Your task to perform on an android device: turn notification dots on Image 0: 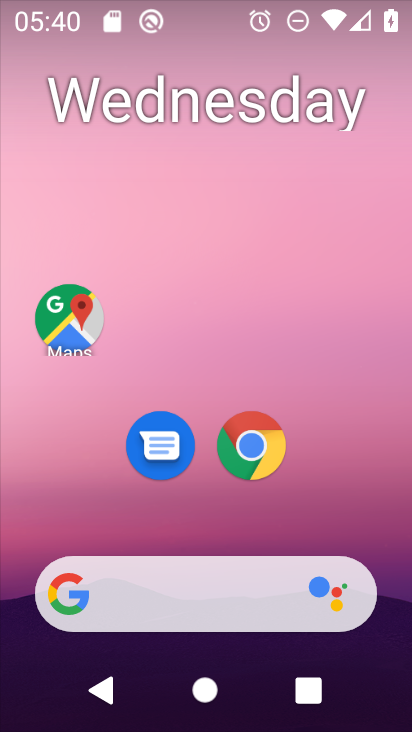
Step 0: drag from (190, 533) to (198, 48)
Your task to perform on an android device: turn notification dots on Image 1: 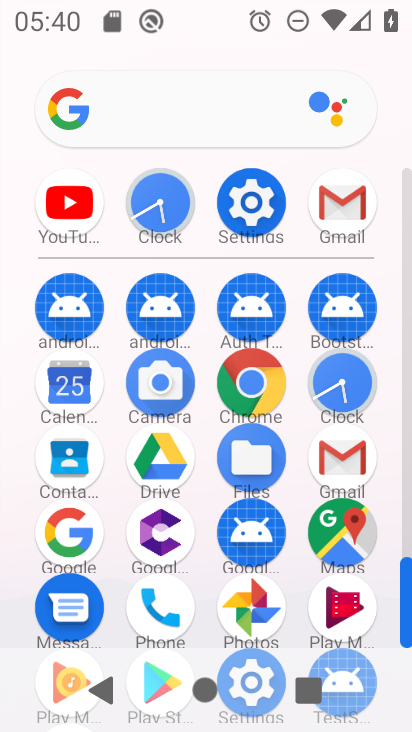
Step 1: click (232, 201)
Your task to perform on an android device: turn notification dots on Image 2: 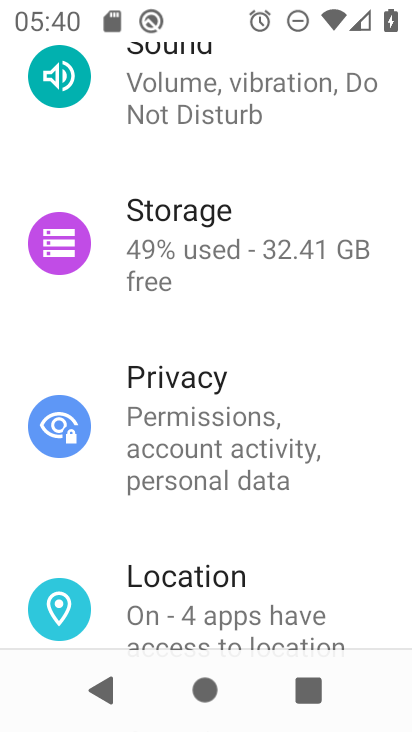
Step 2: drag from (64, 589) to (93, 355)
Your task to perform on an android device: turn notification dots on Image 3: 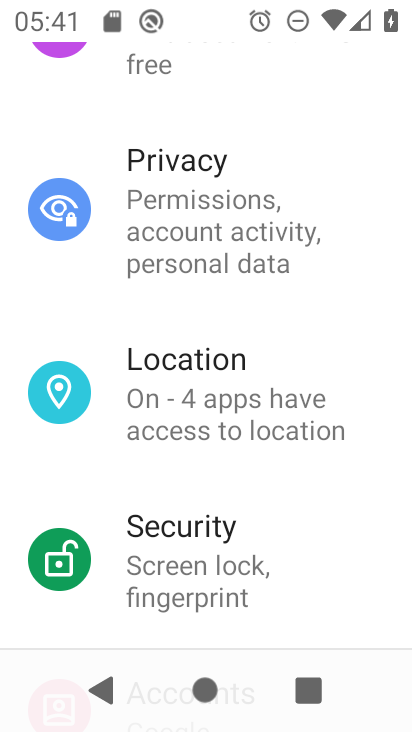
Step 3: drag from (189, 250) to (224, 697)
Your task to perform on an android device: turn notification dots on Image 4: 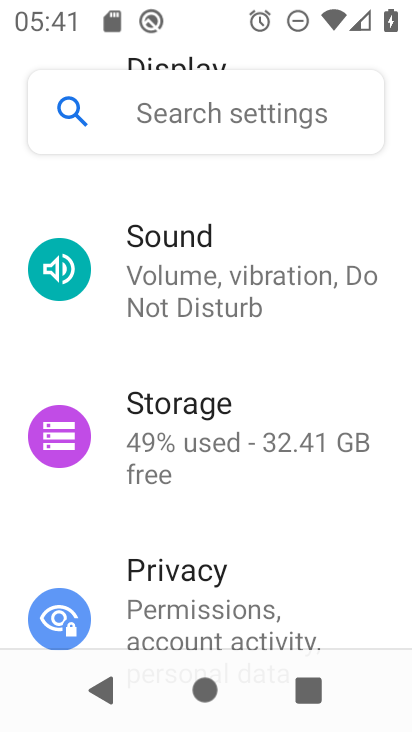
Step 4: drag from (266, 231) to (298, 642)
Your task to perform on an android device: turn notification dots on Image 5: 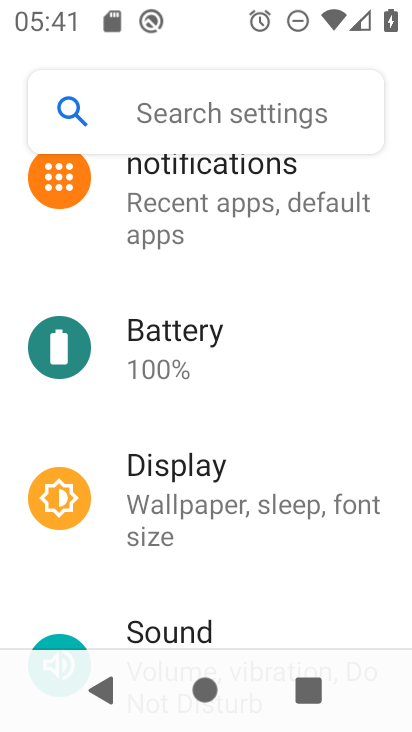
Step 5: click (246, 220)
Your task to perform on an android device: turn notification dots on Image 6: 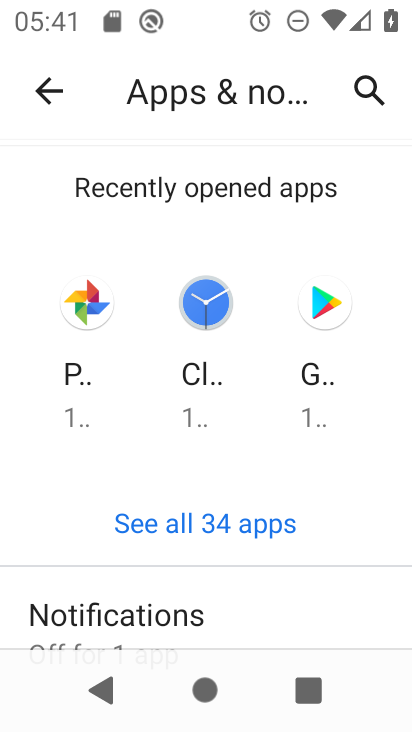
Step 6: drag from (136, 605) to (215, 101)
Your task to perform on an android device: turn notification dots on Image 7: 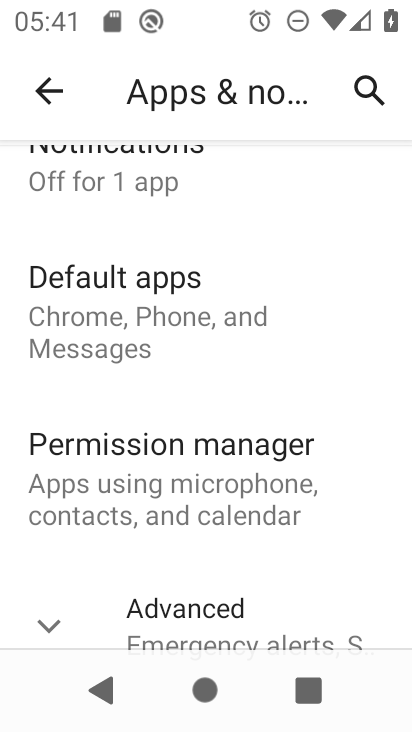
Step 7: click (185, 197)
Your task to perform on an android device: turn notification dots on Image 8: 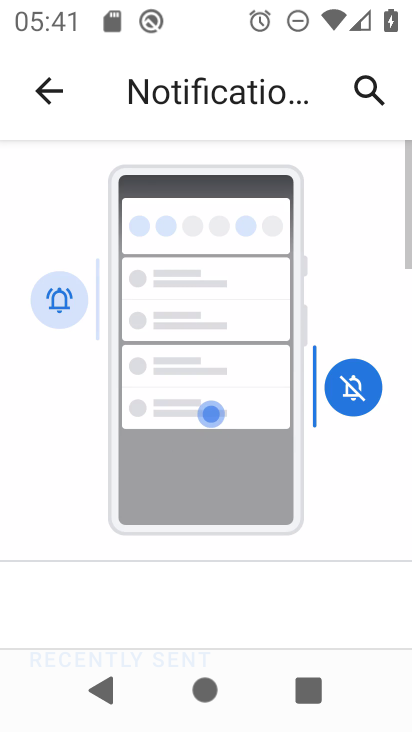
Step 8: drag from (86, 607) to (136, 258)
Your task to perform on an android device: turn notification dots on Image 9: 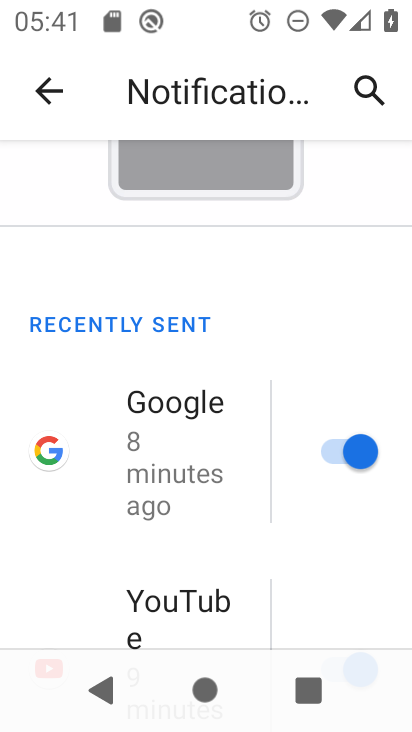
Step 9: drag from (118, 598) to (145, 234)
Your task to perform on an android device: turn notification dots on Image 10: 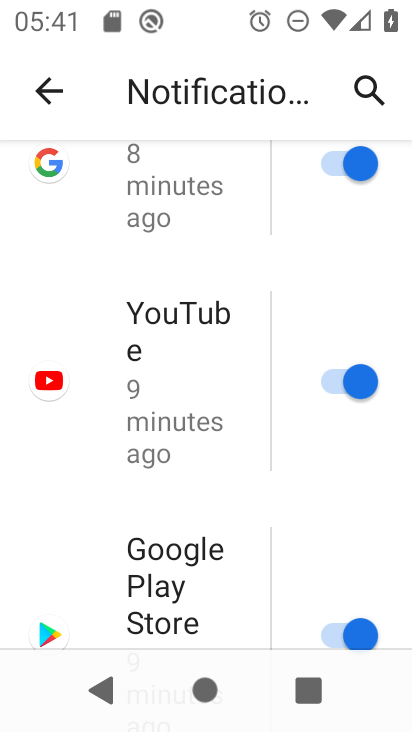
Step 10: drag from (140, 473) to (189, 187)
Your task to perform on an android device: turn notification dots on Image 11: 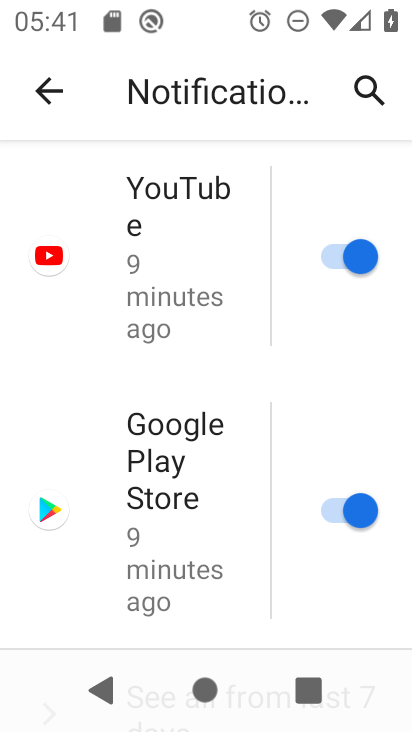
Step 11: drag from (114, 594) to (157, 130)
Your task to perform on an android device: turn notification dots on Image 12: 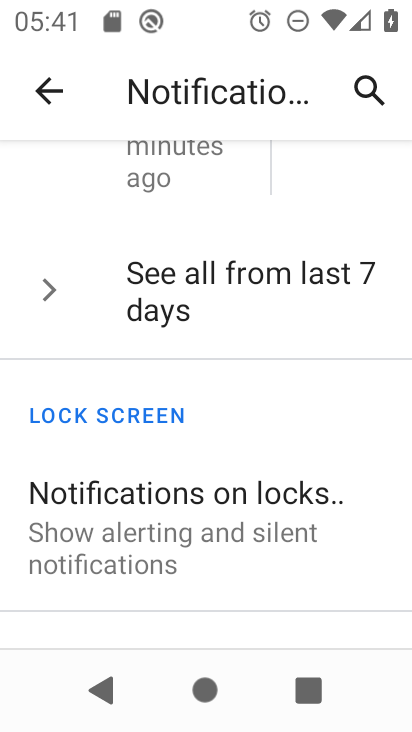
Step 12: drag from (250, 546) to (256, 132)
Your task to perform on an android device: turn notification dots on Image 13: 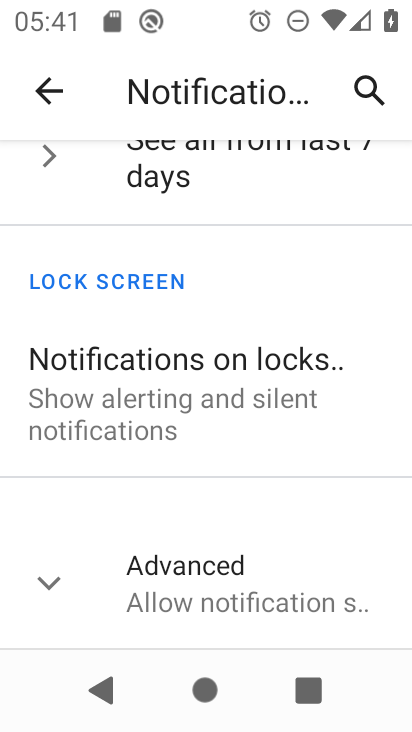
Step 13: click (146, 608)
Your task to perform on an android device: turn notification dots on Image 14: 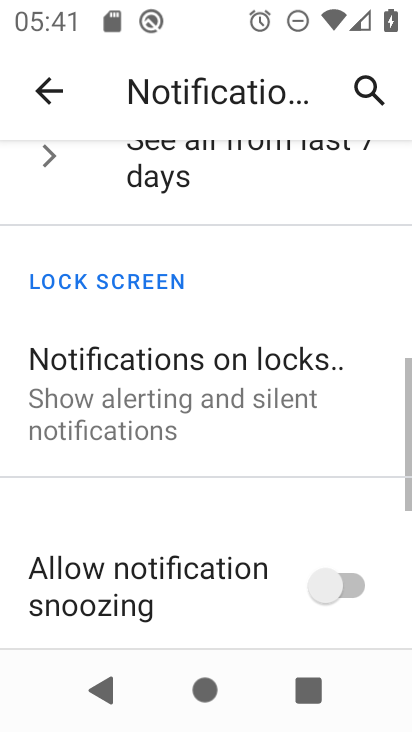
Step 14: drag from (146, 608) to (211, 220)
Your task to perform on an android device: turn notification dots on Image 15: 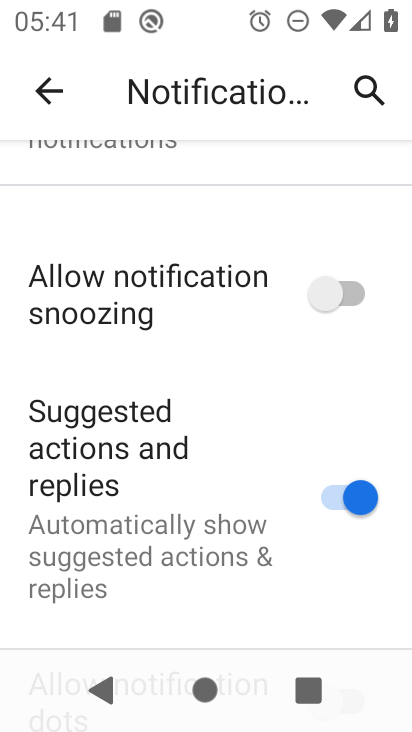
Step 15: drag from (331, 507) to (319, 157)
Your task to perform on an android device: turn notification dots on Image 16: 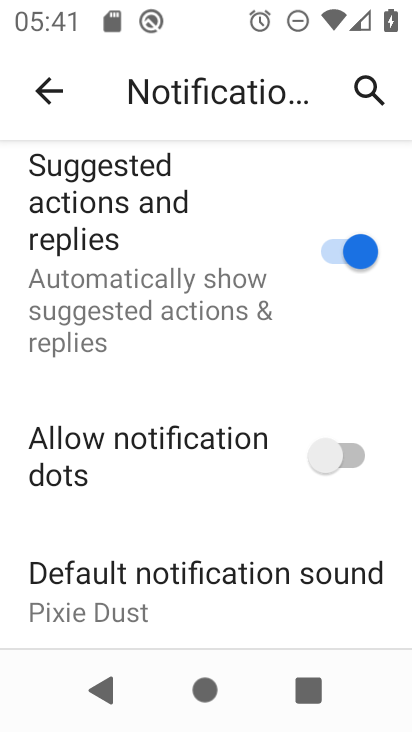
Step 16: click (352, 458)
Your task to perform on an android device: turn notification dots on Image 17: 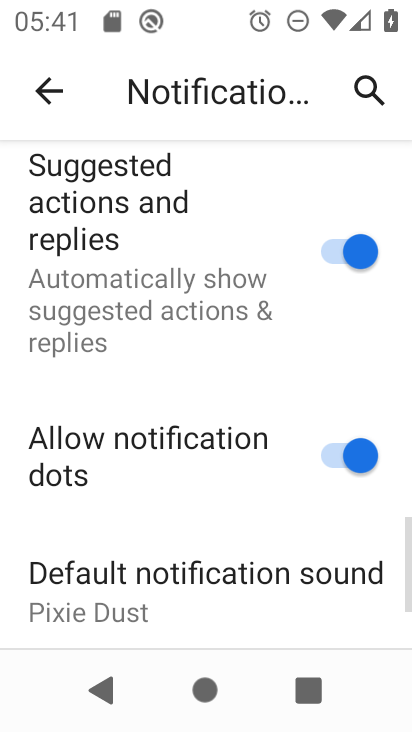
Step 17: task complete